Your task to perform on an android device: clear all cookies in the chrome app Image 0: 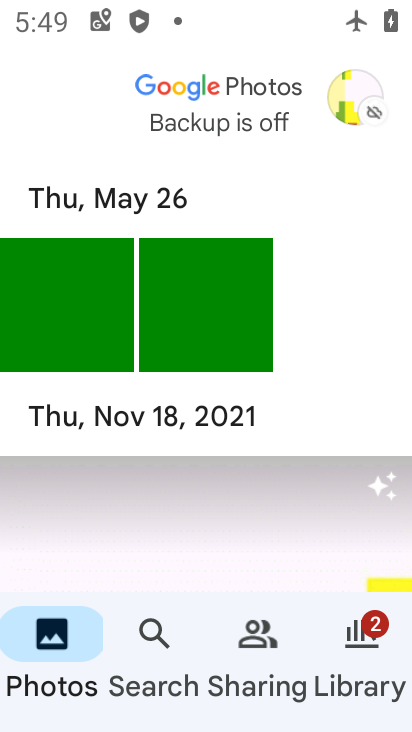
Step 0: press home button
Your task to perform on an android device: clear all cookies in the chrome app Image 1: 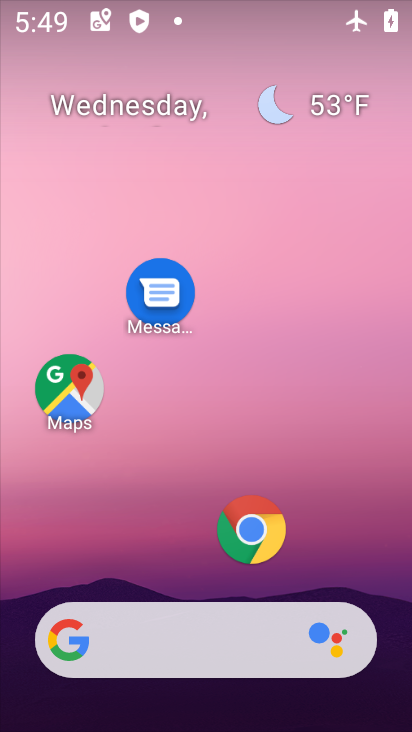
Step 1: click (249, 530)
Your task to perform on an android device: clear all cookies in the chrome app Image 2: 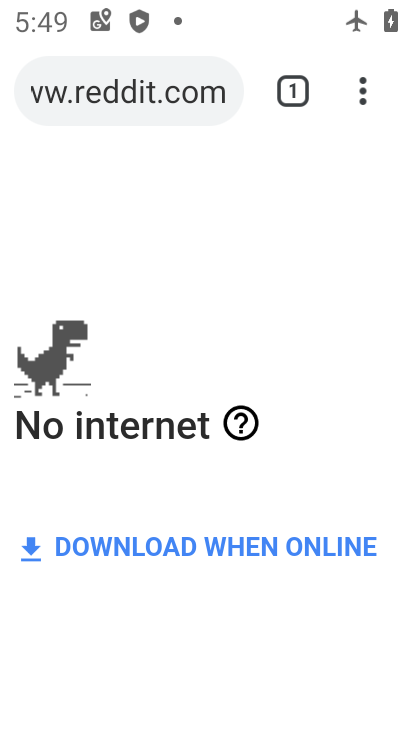
Step 2: click (363, 99)
Your task to perform on an android device: clear all cookies in the chrome app Image 3: 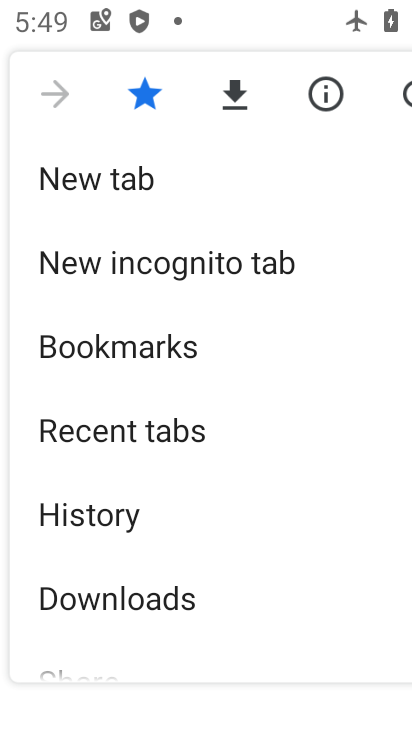
Step 3: click (136, 513)
Your task to perform on an android device: clear all cookies in the chrome app Image 4: 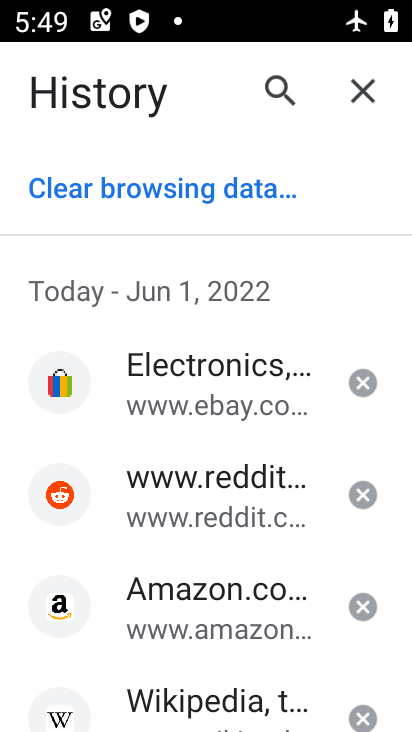
Step 4: click (192, 189)
Your task to perform on an android device: clear all cookies in the chrome app Image 5: 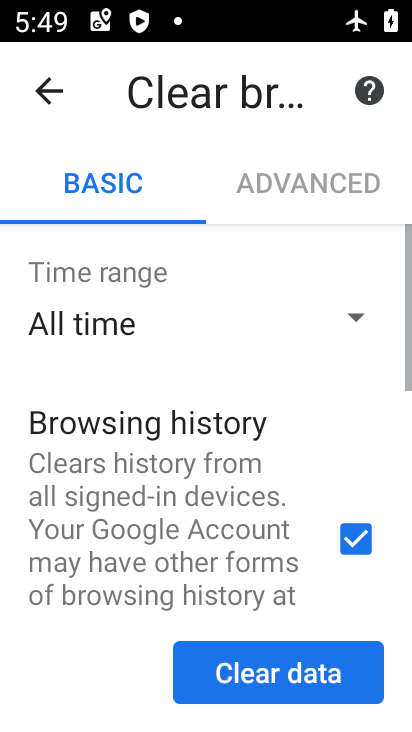
Step 5: click (363, 546)
Your task to perform on an android device: clear all cookies in the chrome app Image 6: 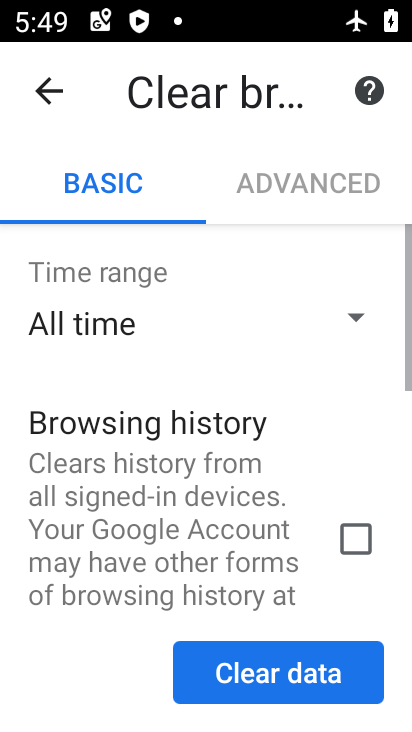
Step 6: drag from (219, 564) to (236, 380)
Your task to perform on an android device: clear all cookies in the chrome app Image 7: 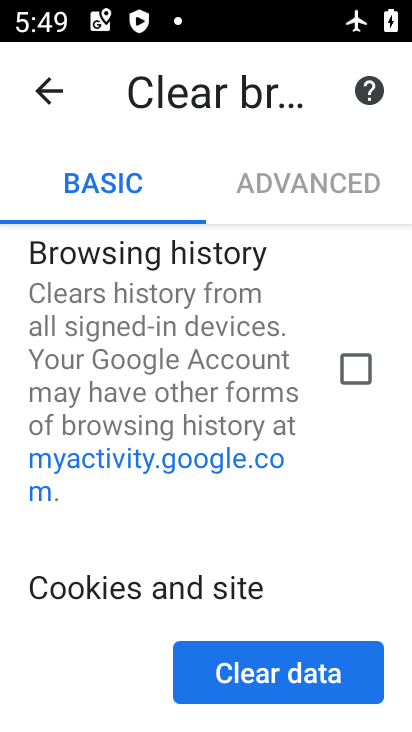
Step 7: drag from (277, 565) to (306, 382)
Your task to perform on an android device: clear all cookies in the chrome app Image 8: 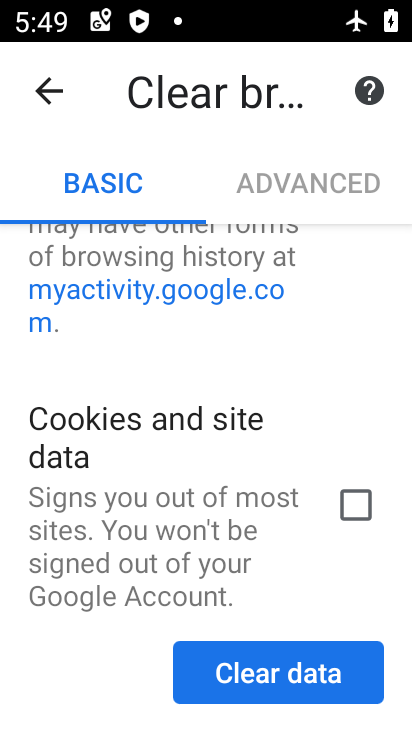
Step 8: click (360, 507)
Your task to perform on an android device: clear all cookies in the chrome app Image 9: 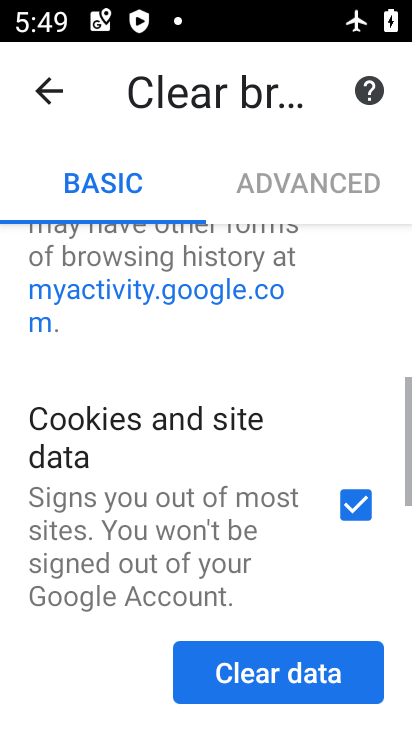
Step 9: drag from (257, 558) to (296, 288)
Your task to perform on an android device: clear all cookies in the chrome app Image 10: 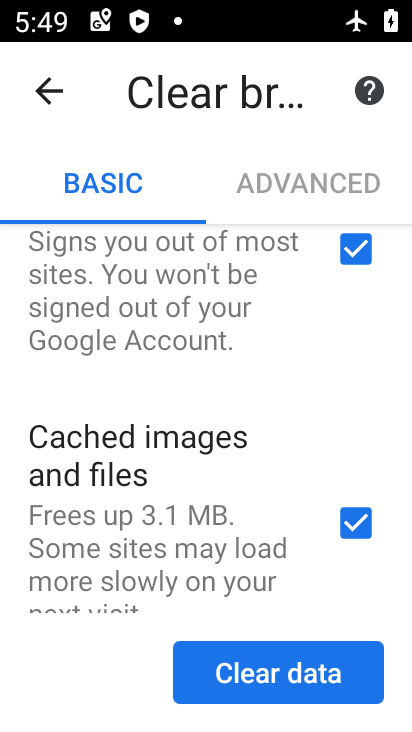
Step 10: click (353, 521)
Your task to perform on an android device: clear all cookies in the chrome app Image 11: 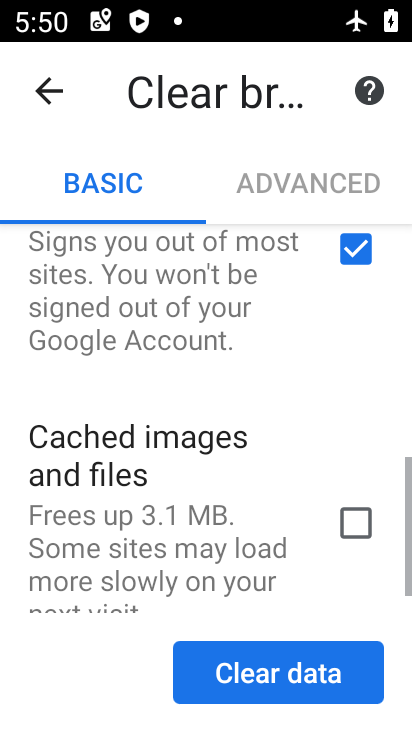
Step 11: click (259, 682)
Your task to perform on an android device: clear all cookies in the chrome app Image 12: 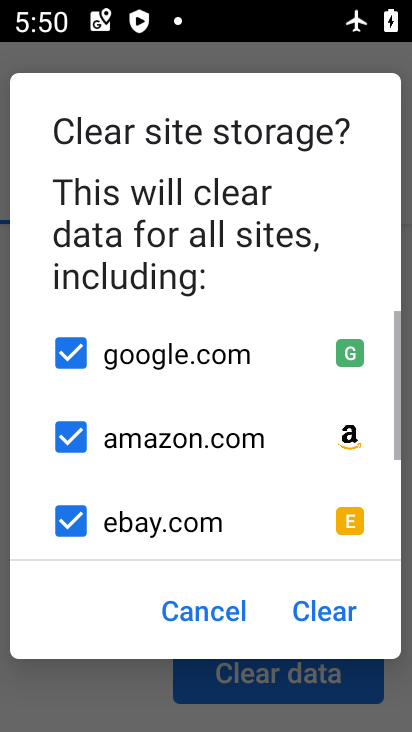
Step 12: click (328, 618)
Your task to perform on an android device: clear all cookies in the chrome app Image 13: 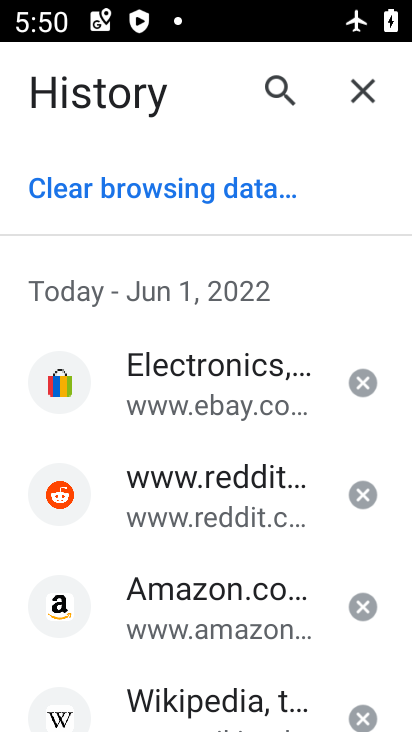
Step 13: task complete